Your task to perform on an android device: Open Google Maps Image 0: 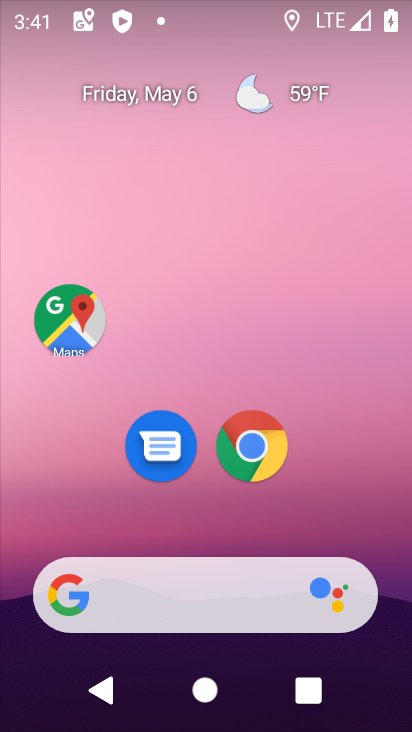
Step 0: click (86, 319)
Your task to perform on an android device: Open Google Maps Image 1: 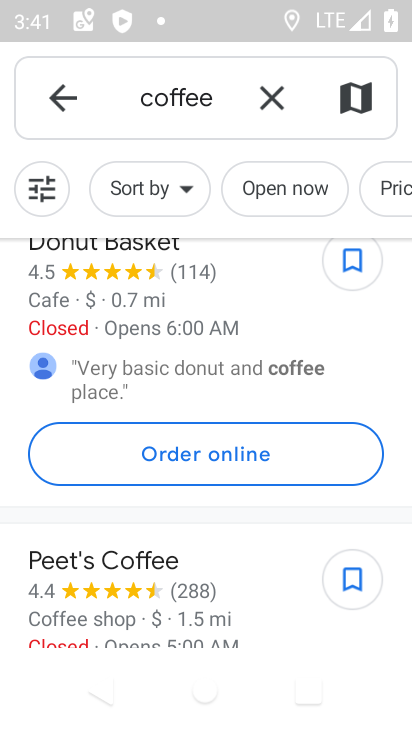
Step 1: click (278, 111)
Your task to perform on an android device: Open Google Maps Image 2: 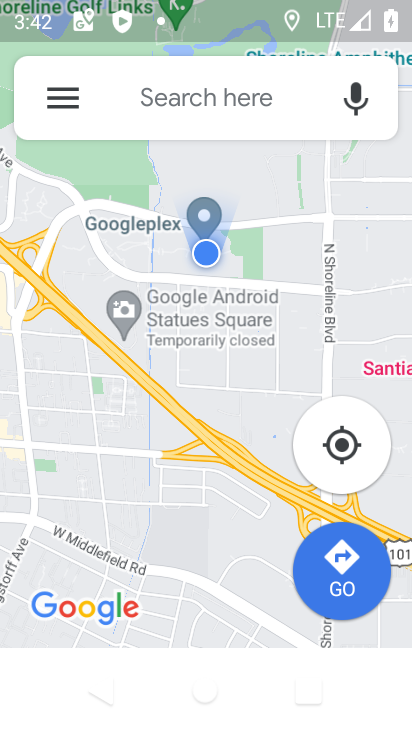
Step 2: task complete